Your task to perform on an android device: turn on bluetooth scan Image 0: 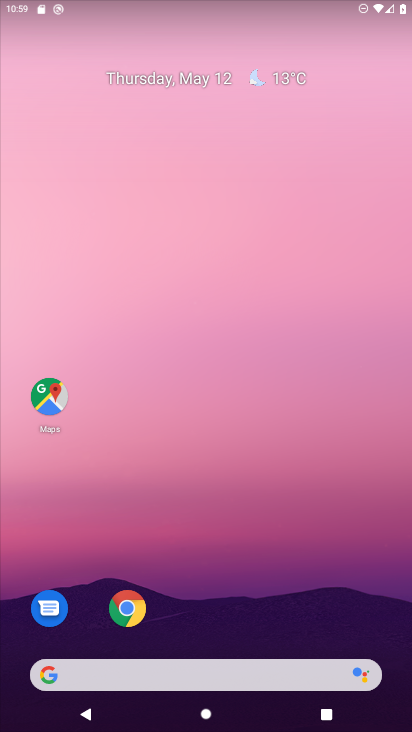
Step 0: drag from (196, 599) to (212, 113)
Your task to perform on an android device: turn on bluetooth scan Image 1: 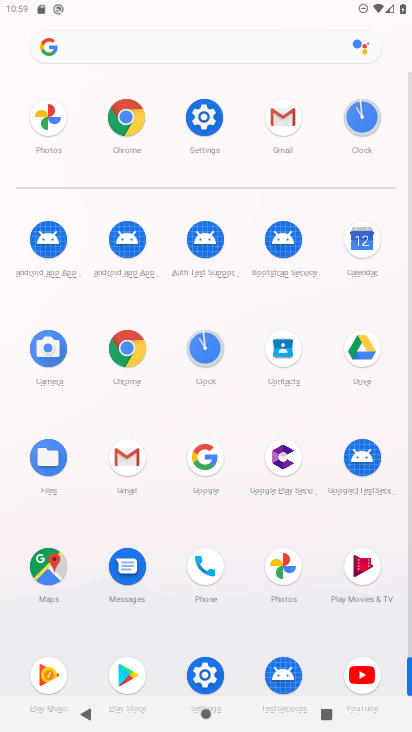
Step 1: click (209, 112)
Your task to perform on an android device: turn on bluetooth scan Image 2: 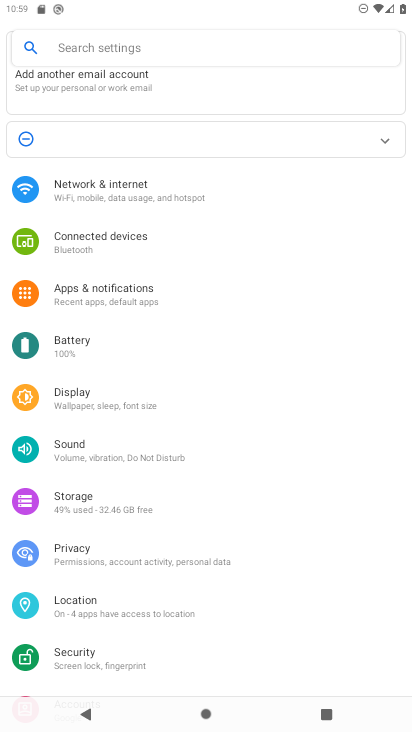
Step 2: click (71, 604)
Your task to perform on an android device: turn on bluetooth scan Image 3: 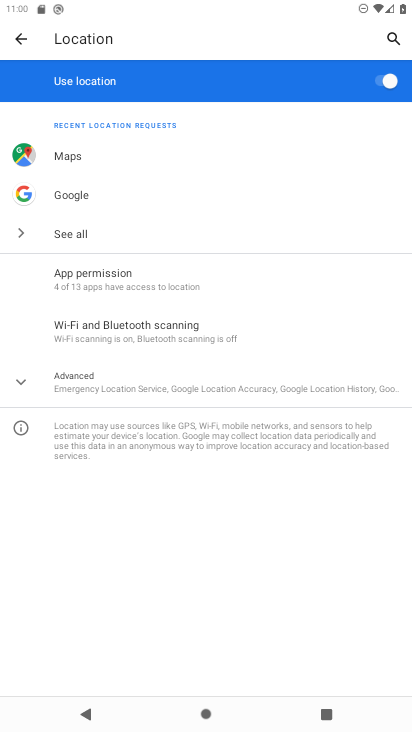
Step 3: click (150, 331)
Your task to perform on an android device: turn on bluetooth scan Image 4: 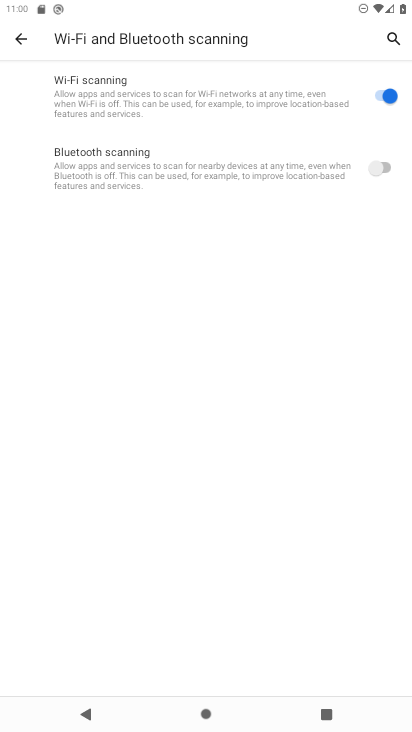
Step 4: click (388, 161)
Your task to perform on an android device: turn on bluetooth scan Image 5: 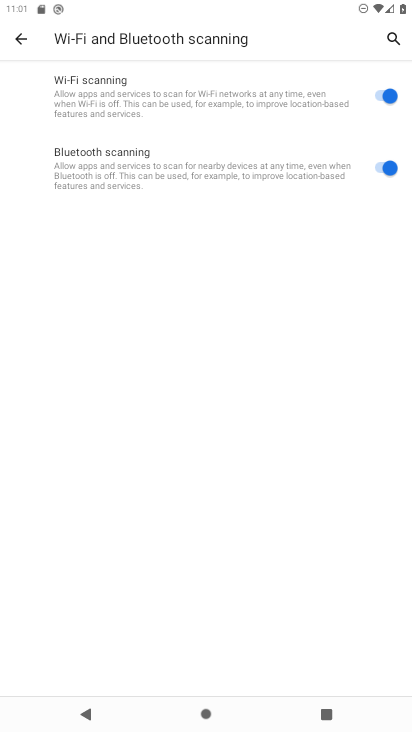
Step 5: task complete